Your task to perform on an android device: Clear the cart on walmart.com. Add "lg ultragear" to the cart on walmart.com Image 0: 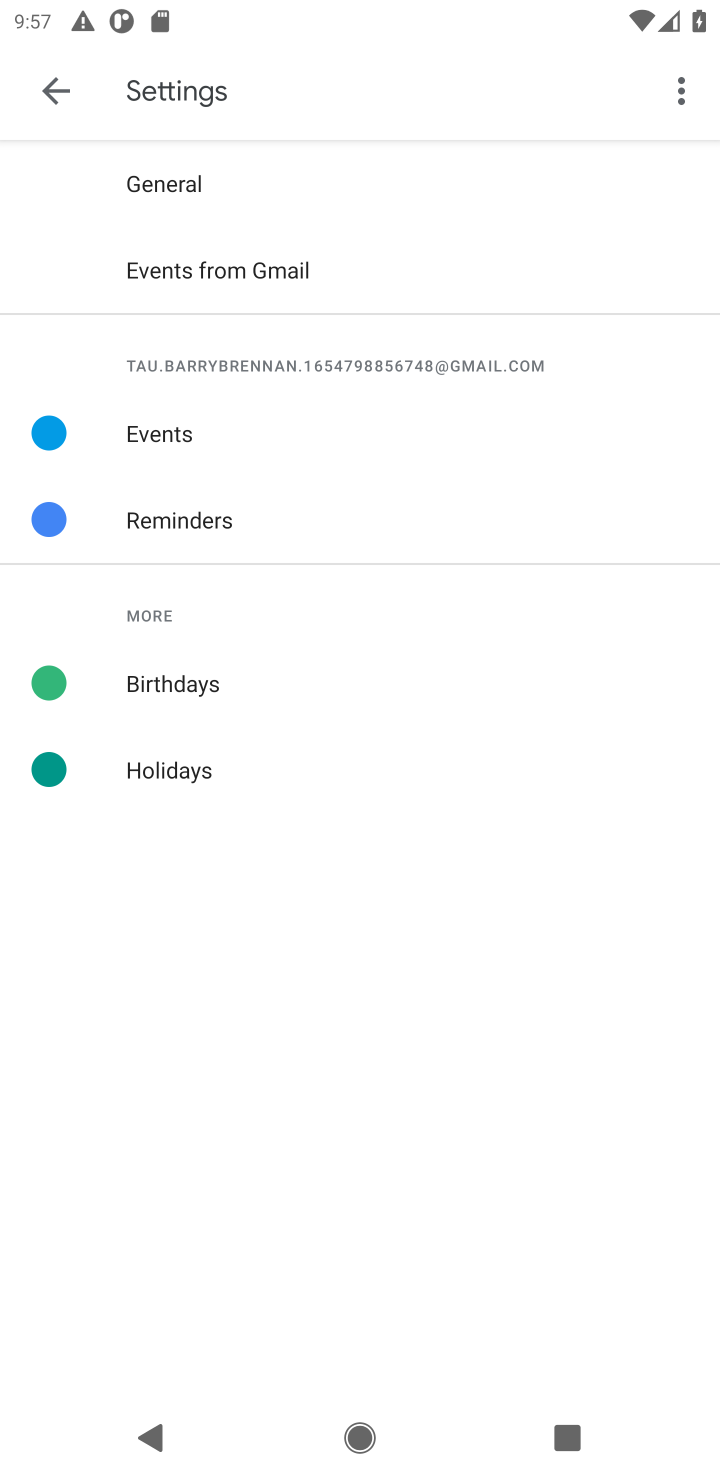
Step 0: press home button
Your task to perform on an android device: Clear the cart on walmart.com. Add "lg ultragear" to the cart on walmart.com Image 1: 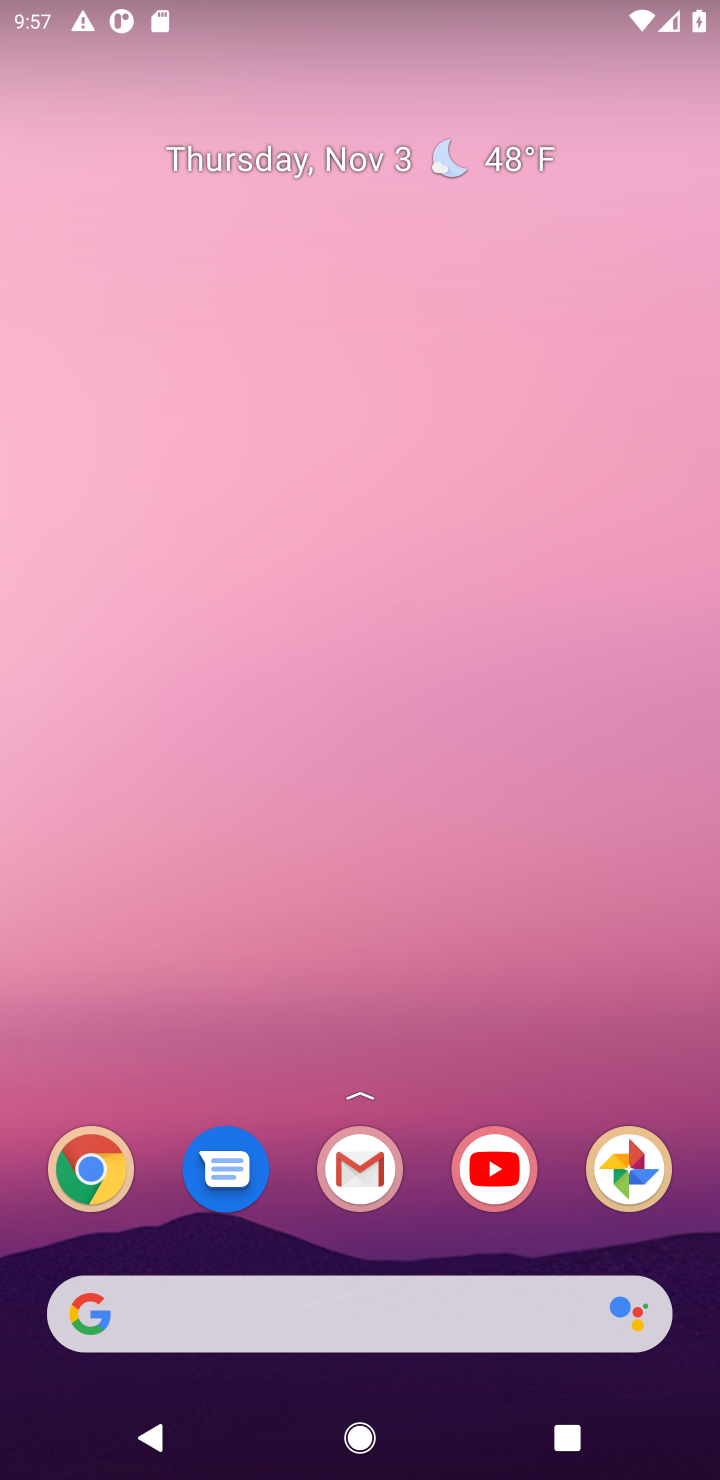
Step 1: drag from (412, 1253) to (475, 184)
Your task to perform on an android device: Clear the cart on walmart.com. Add "lg ultragear" to the cart on walmart.com Image 2: 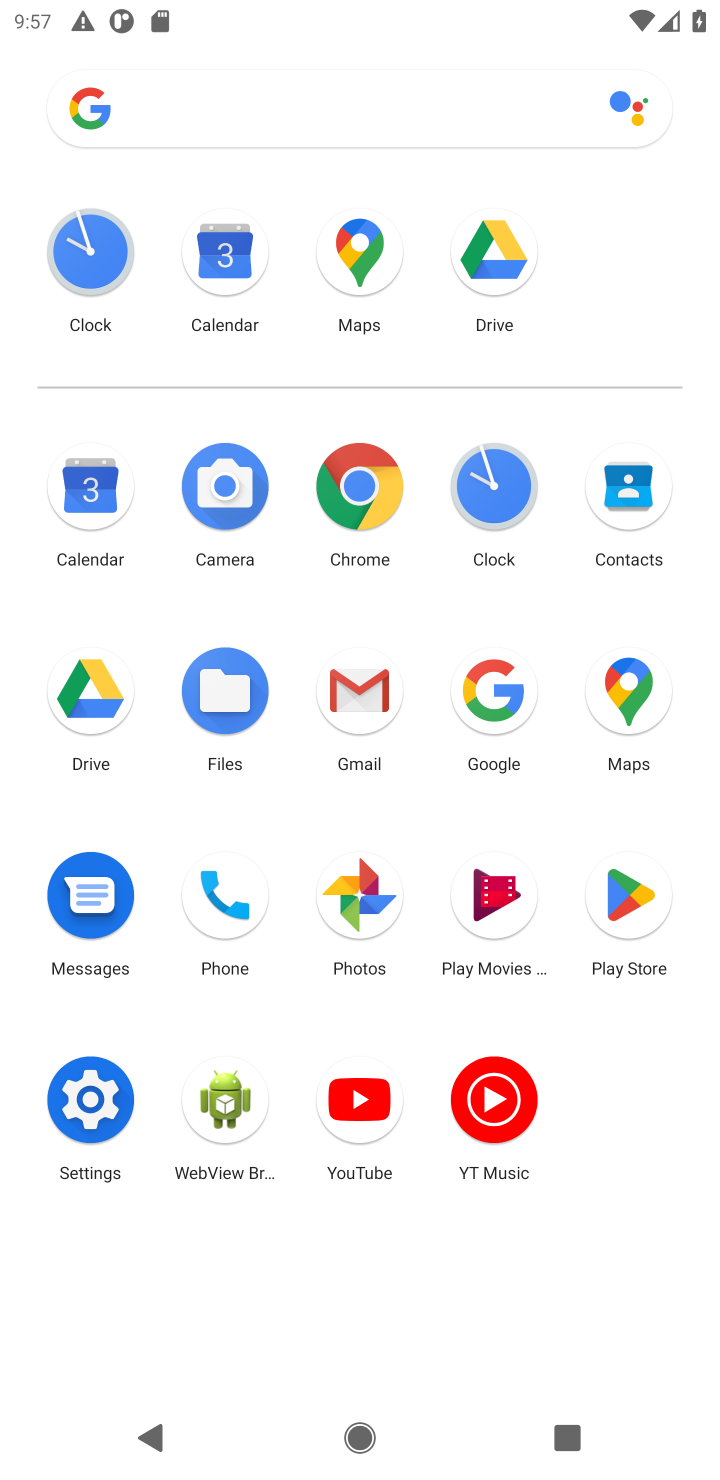
Step 2: click (350, 487)
Your task to perform on an android device: Clear the cart on walmart.com. Add "lg ultragear" to the cart on walmart.com Image 3: 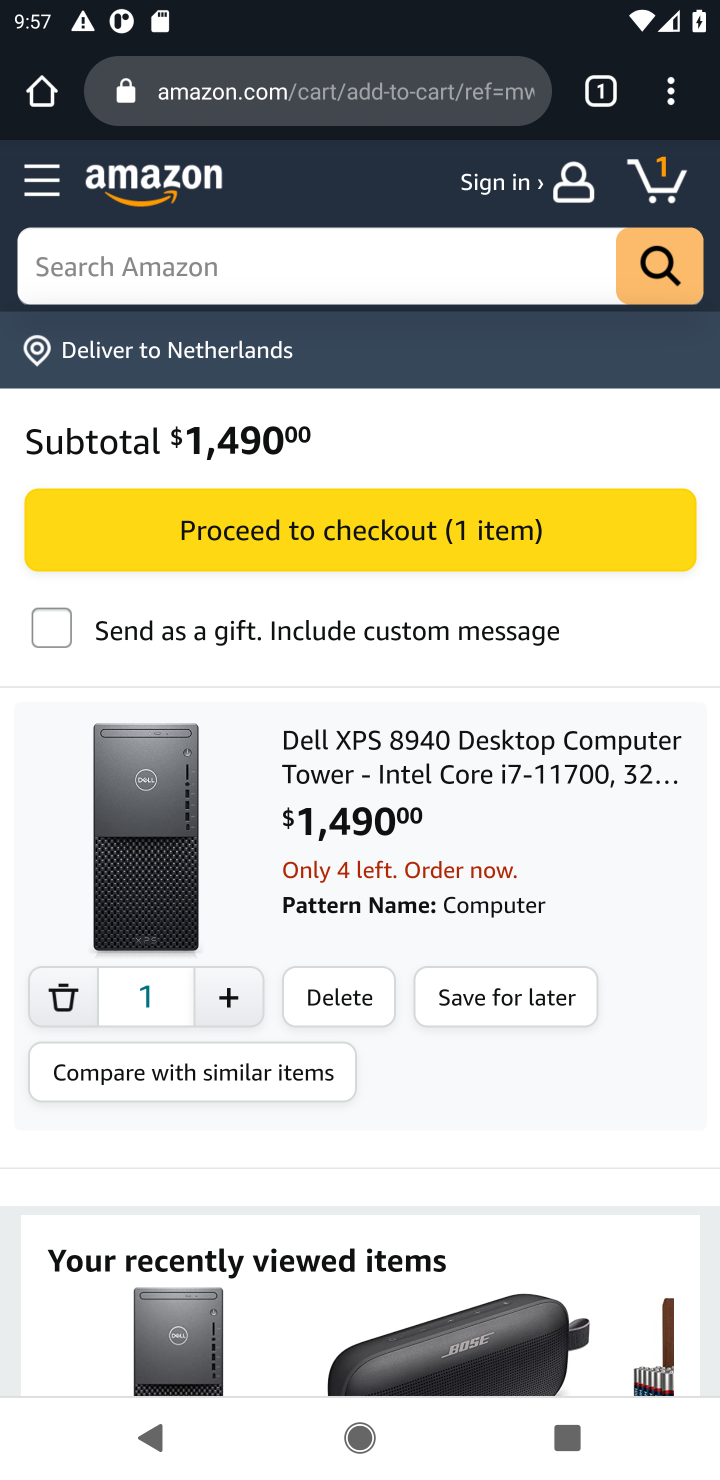
Step 3: click (314, 96)
Your task to perform on an android device: Clear the cart on walmart.com. Add "lg ultragear" to the cart on walmart.com Image 4: 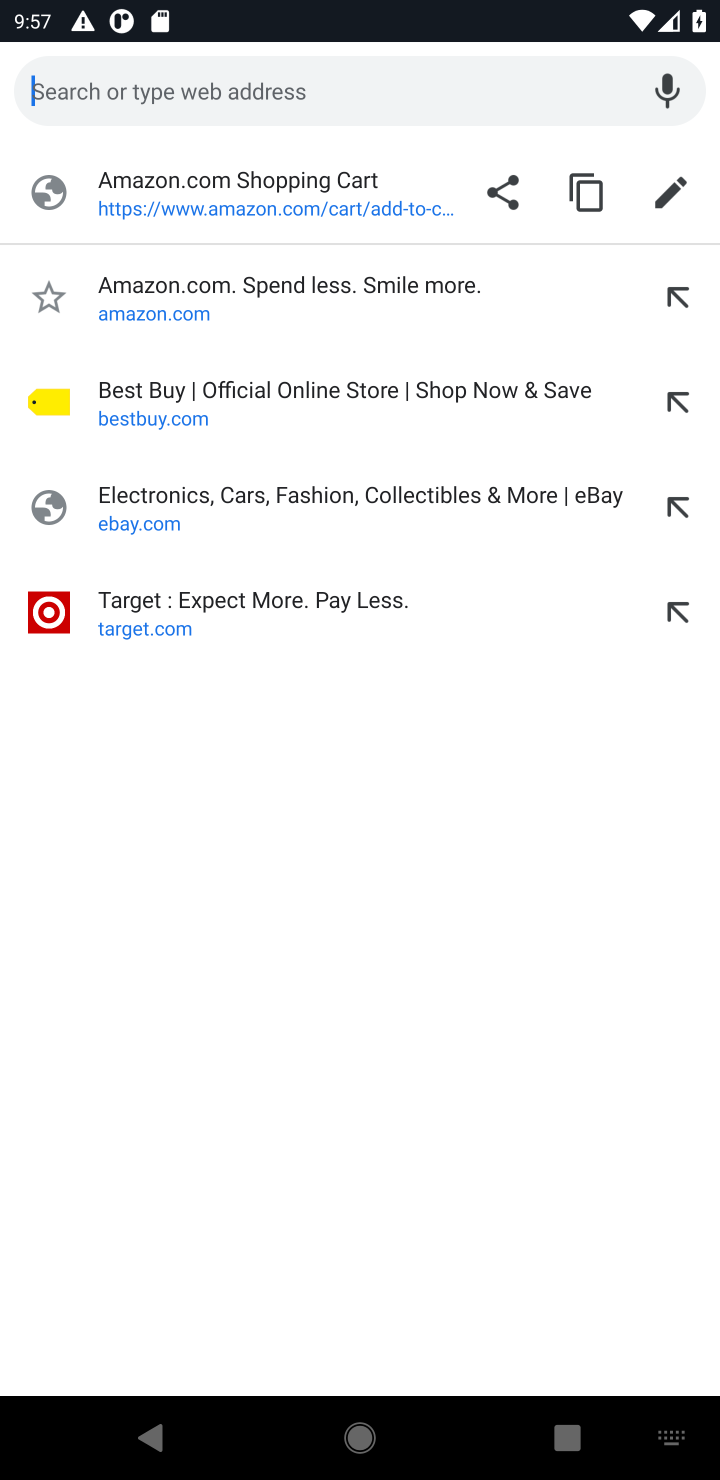
Step 4: type "lg utragrear"
Your task to perform on an android device: Clear the cart on walmart.com. Add "lg ultragear" to the cart on walmart.com Image 5: 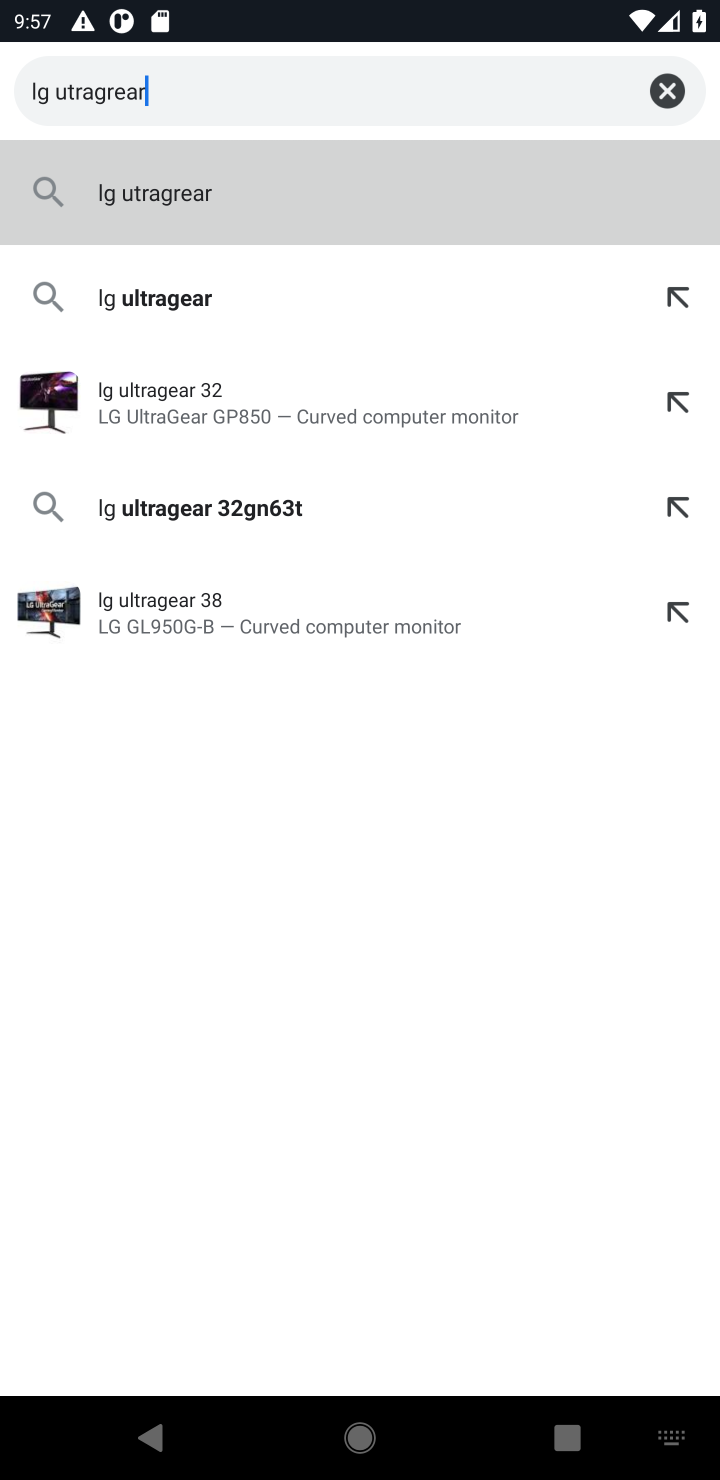
Step 5: click (658, 77)
Your task to perform on an android device: Clear the cart on walmart.com. Add "lg ultragear" to the cart on walmart.com Image 6: 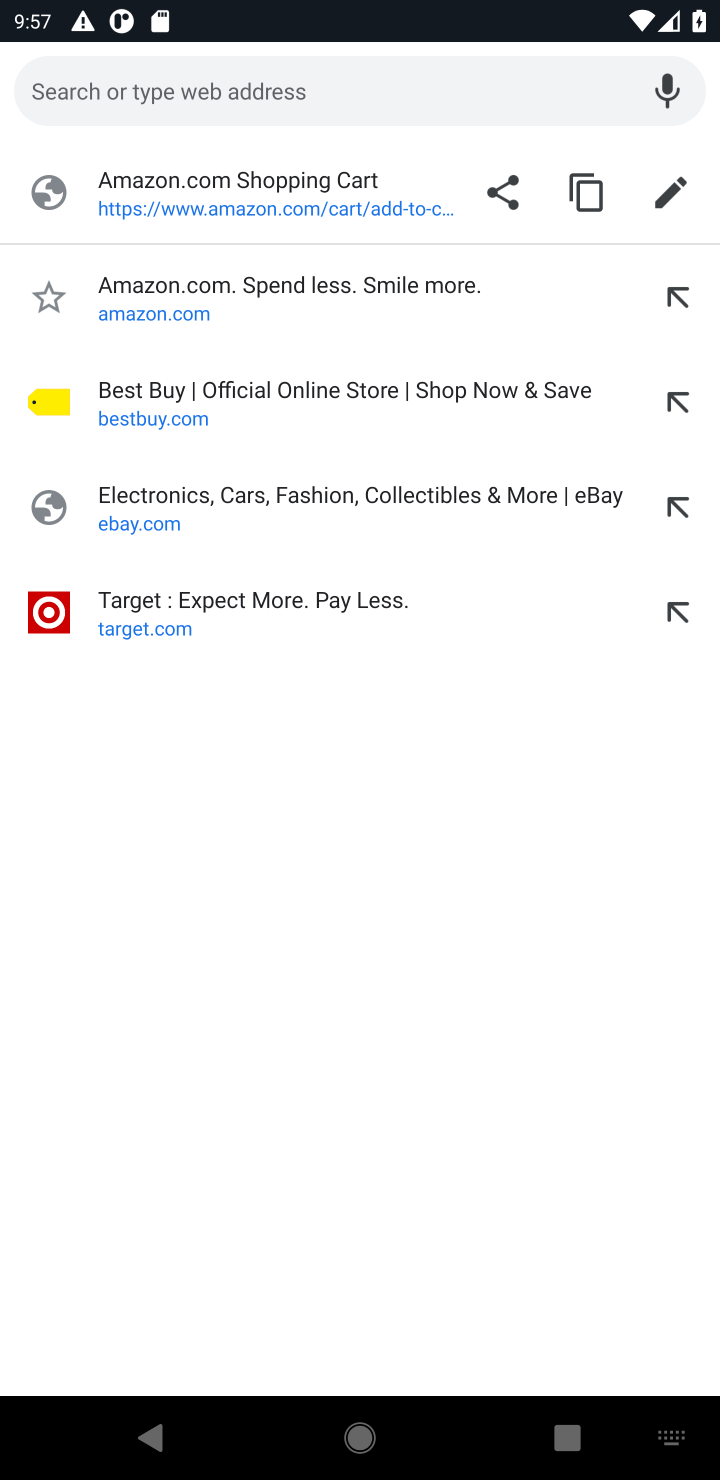
Step 6: type "walmart.com"
Your task to perform on an android device: Clear the cart on walmart.com. Add "lg ultragear" to the cart on walmart.com Image 7: 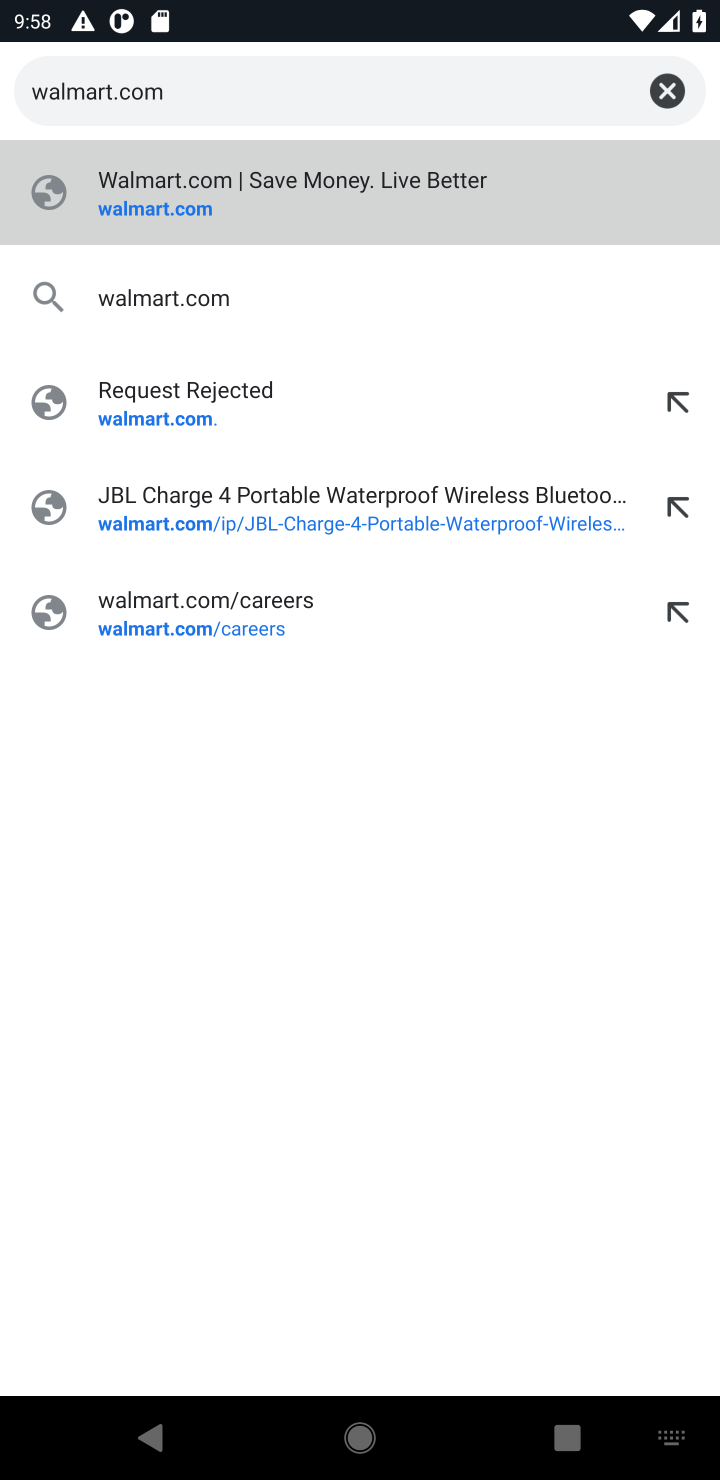
Step 7: press enter
Your task to perform on an android device: Clear the cart on walmart.com. Add "lg ultragear" to the cart on walmart.com Image 8: 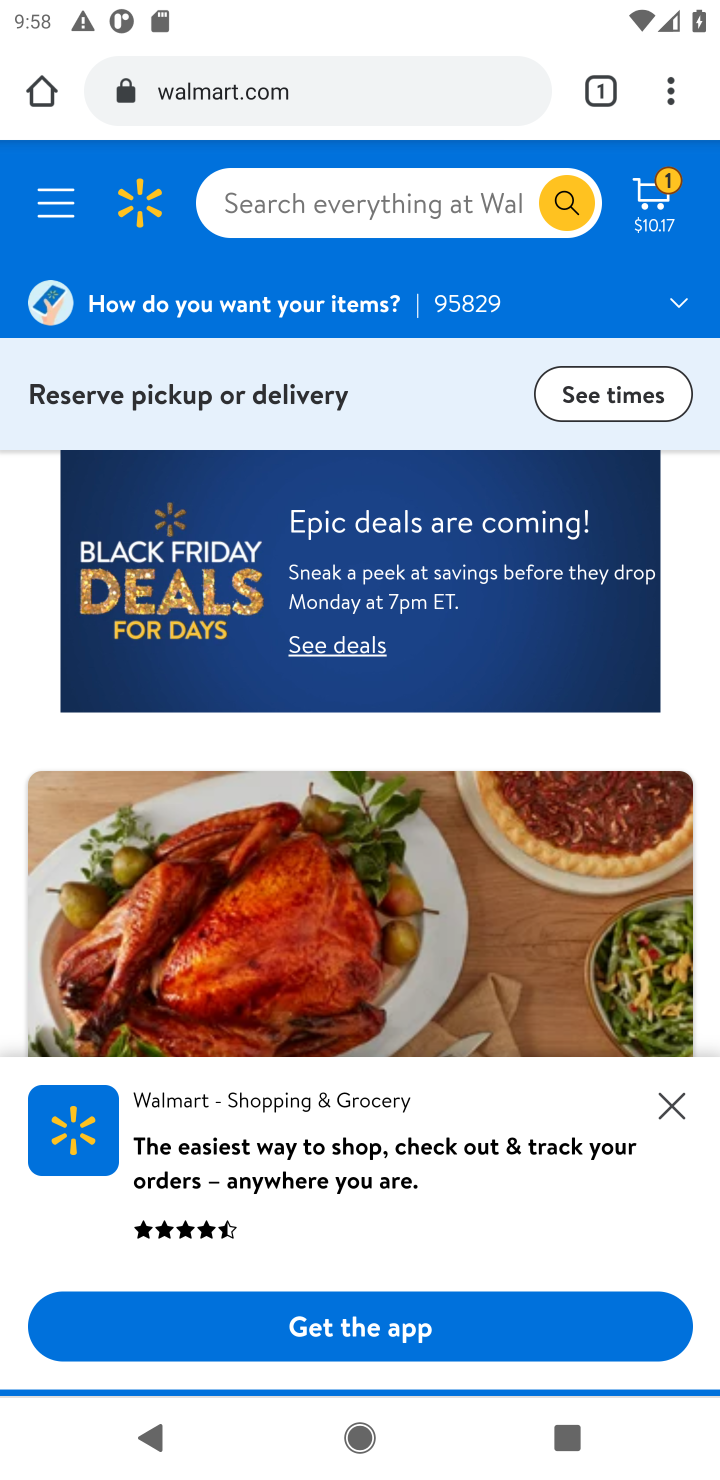
Step 8: click (390, 182)
Your task to perform on an android device: Clear the cart on walmart.com. Add "lg ultragear" to the cart on walmart.com Image 9: 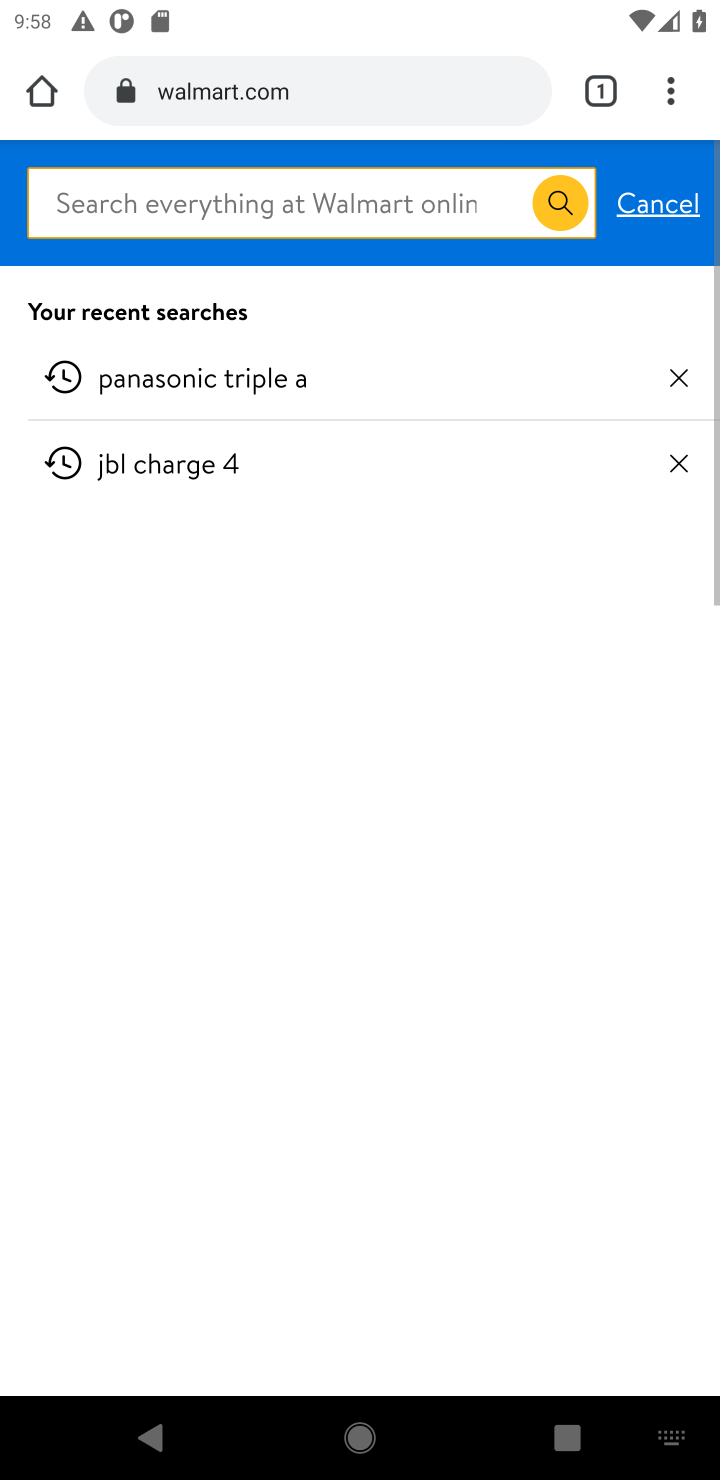
Step 9: click (668, 179)
Your task to perform on an android device: Clear the cart on walmart.com. Add "lg ultragear" to the cart on walmart.com Image 10: 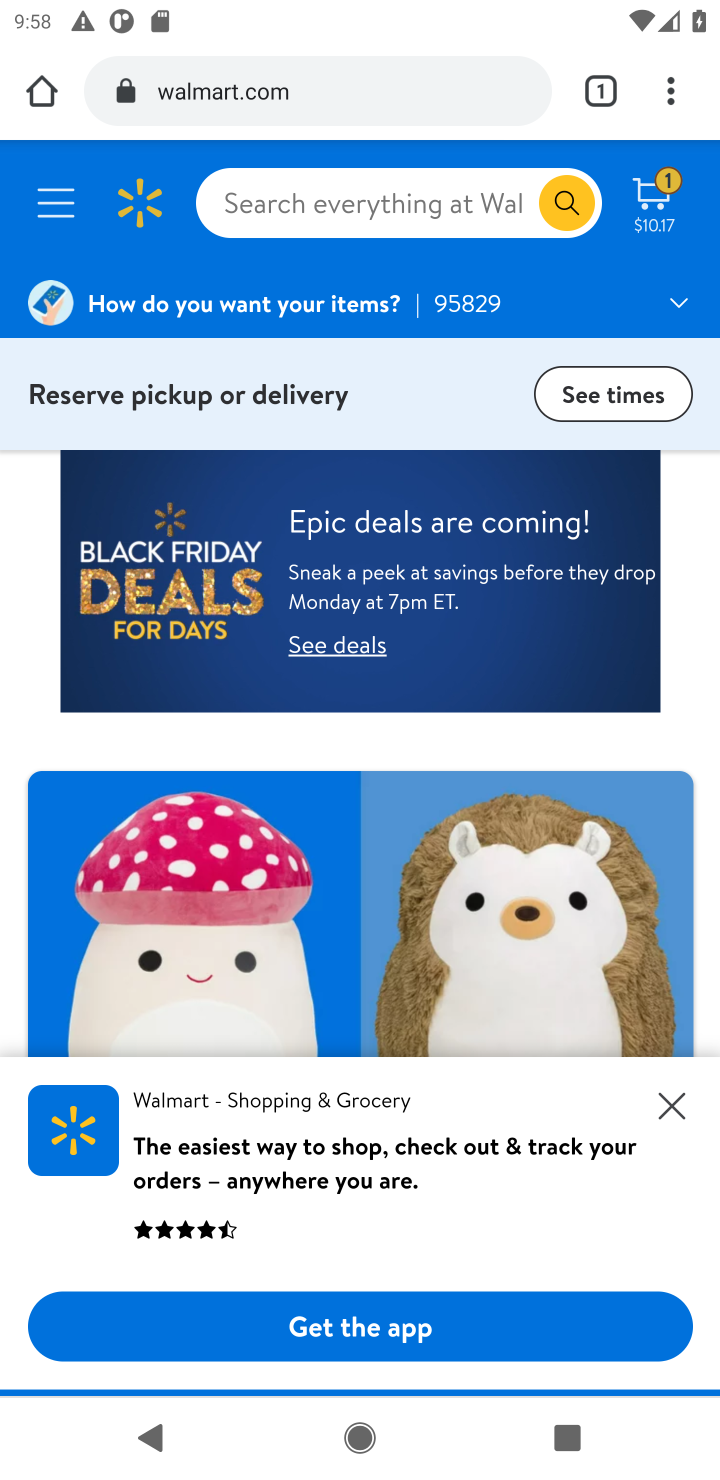
Step 10: click (668, 185)
Your task to perform on an android device: Clear the cart on walmart.com. Add "lg ultragear" to the cart on walmart.com Image 11: 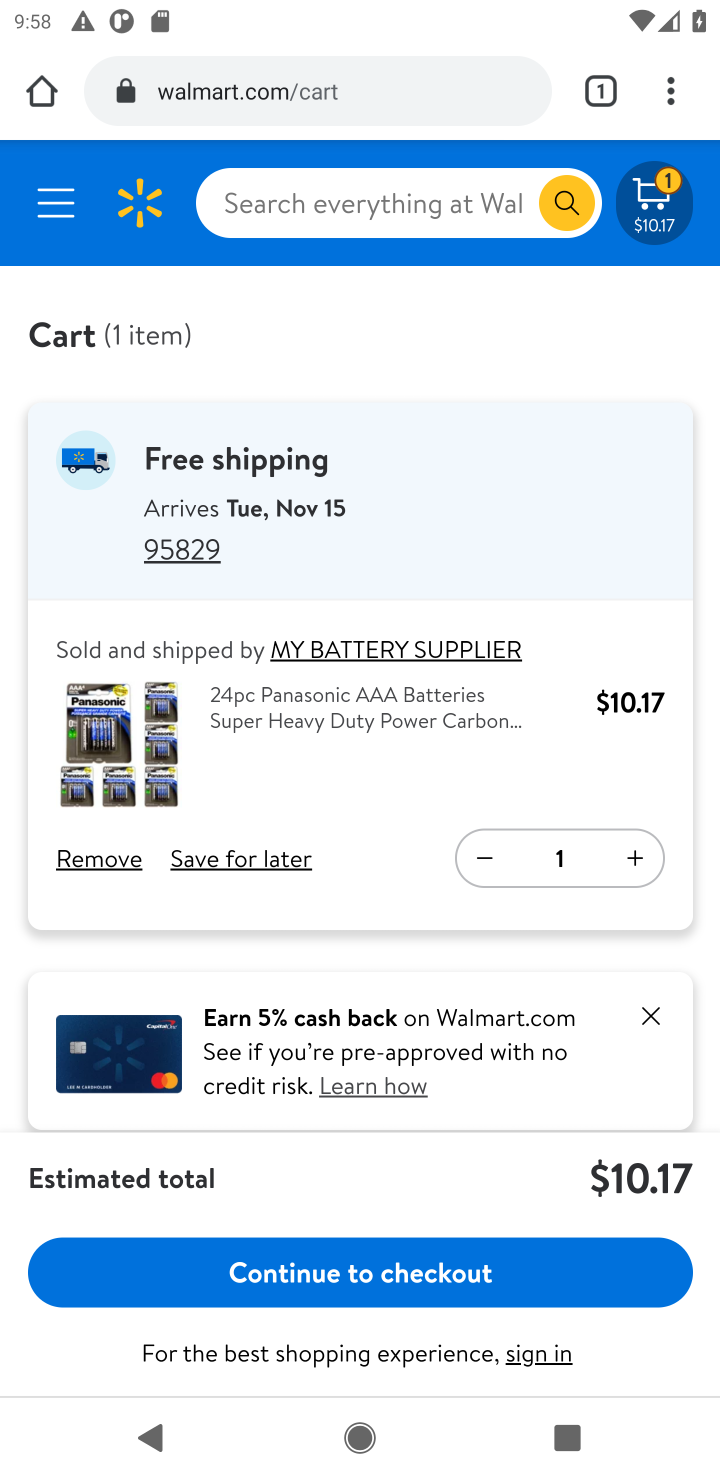
Step 11: click (92, 863)
Your task to perform on an android device: Clear the cart on walmart.com. Add "lg ultragear" to the cart on walmart.com Image 12: 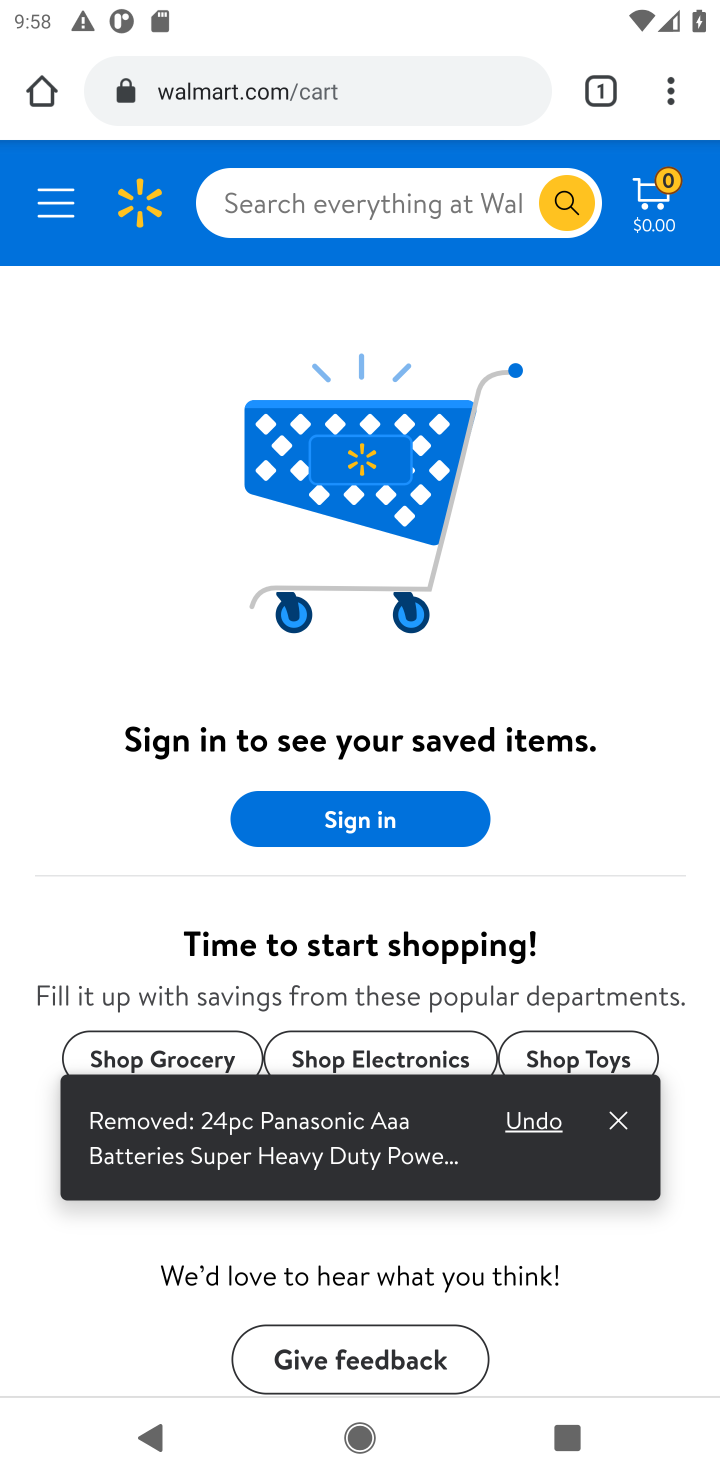
Step 12: click (359, 205)
Your task to perform on an android device: Clear the cart on walmart.com. Add "lg ultragear" to the cart on walmart.com Image 13: 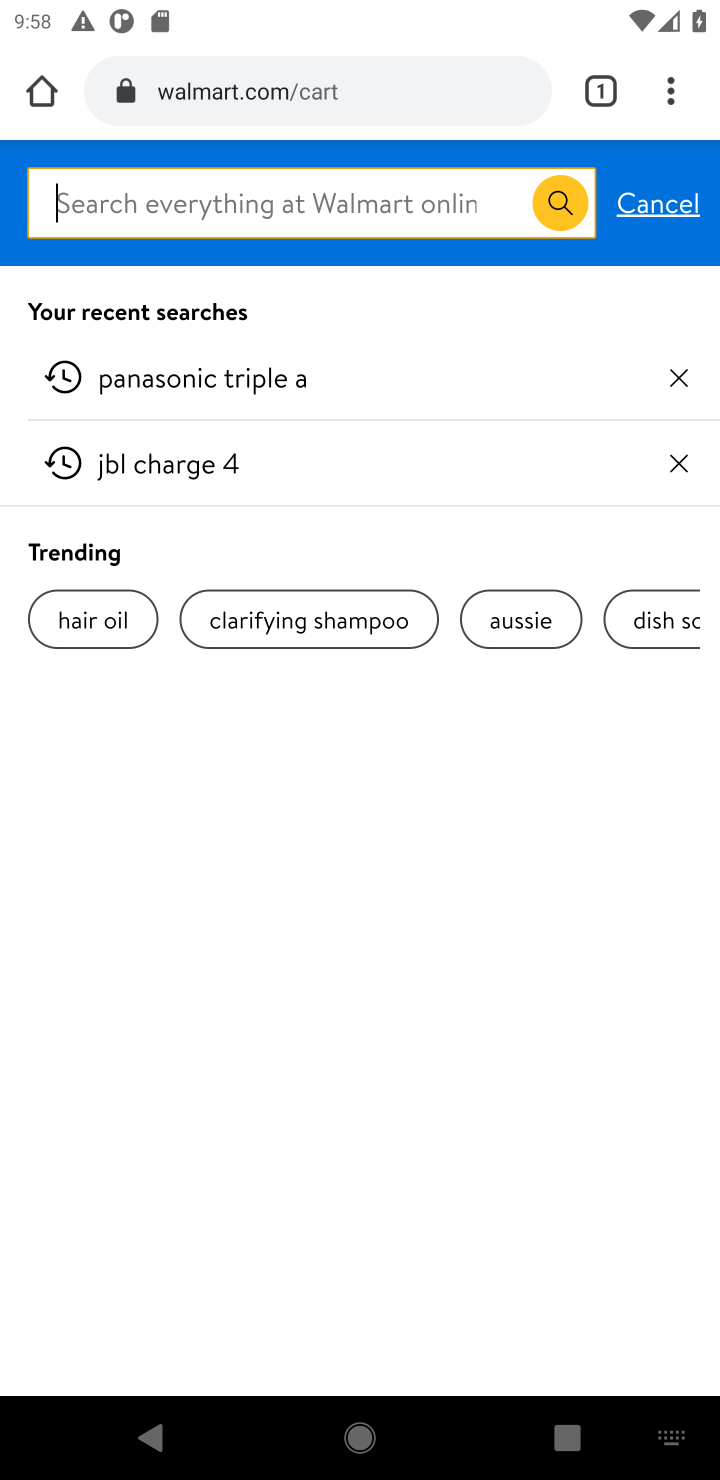
Step 13: type "lg utragrear"
Your task to perform on an android device: Clear the cart on walmart.com. Add "lg ultragear" to the cart on walmart.com Image 14: 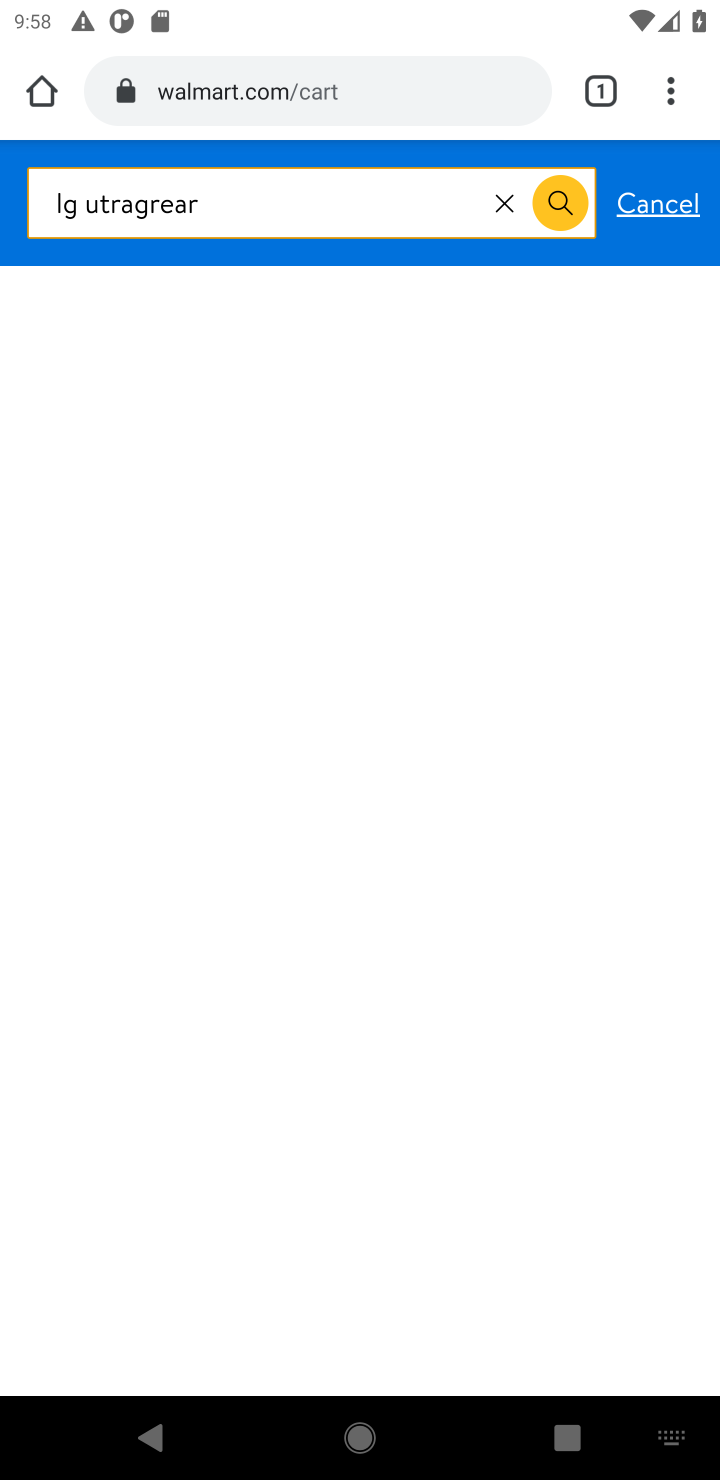
Step 14: click (507, 201)
Your task to perform on an android device: Clear the cart on walmart.com. Add "lg ultragear" to the cart on walmart.com Image 15: 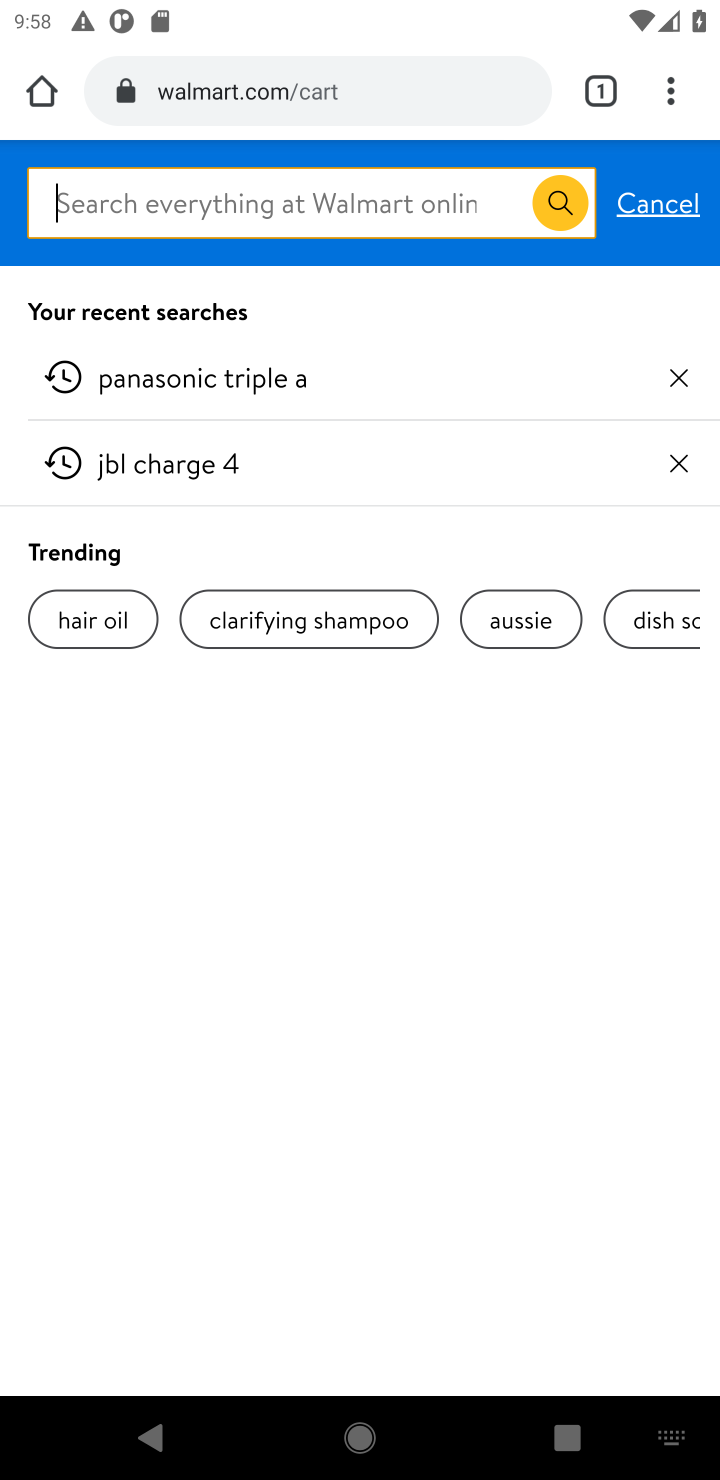
Step 15: type "lg ultragear"
Your task to perform on an android device: Clear the cart on walmart.com. Add "lg ultragear" to the cart on walmart.com Image 16: 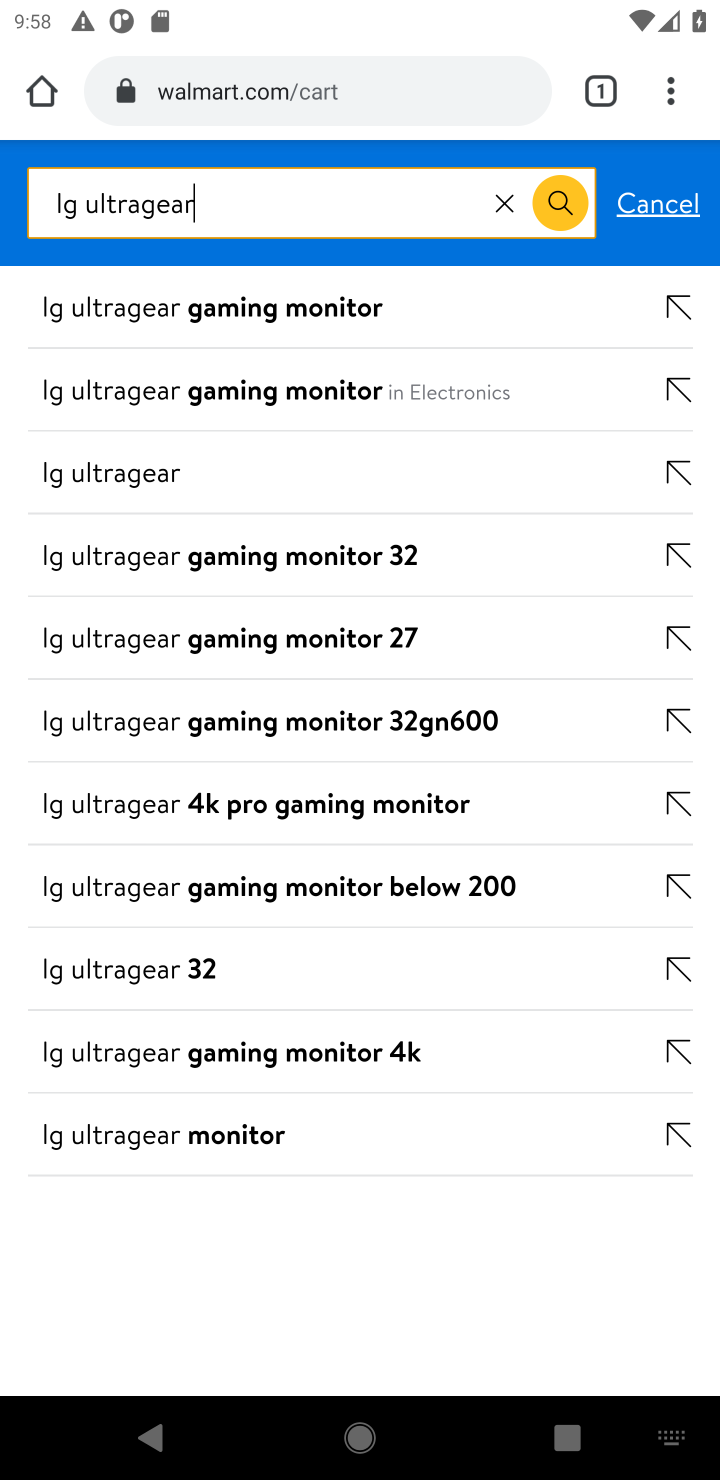
Step 16: press enter
Your task to perform on an android device: Clear the cart on walmart.com. Add "lg ultragear" to the cart on walmart.com Image 17: 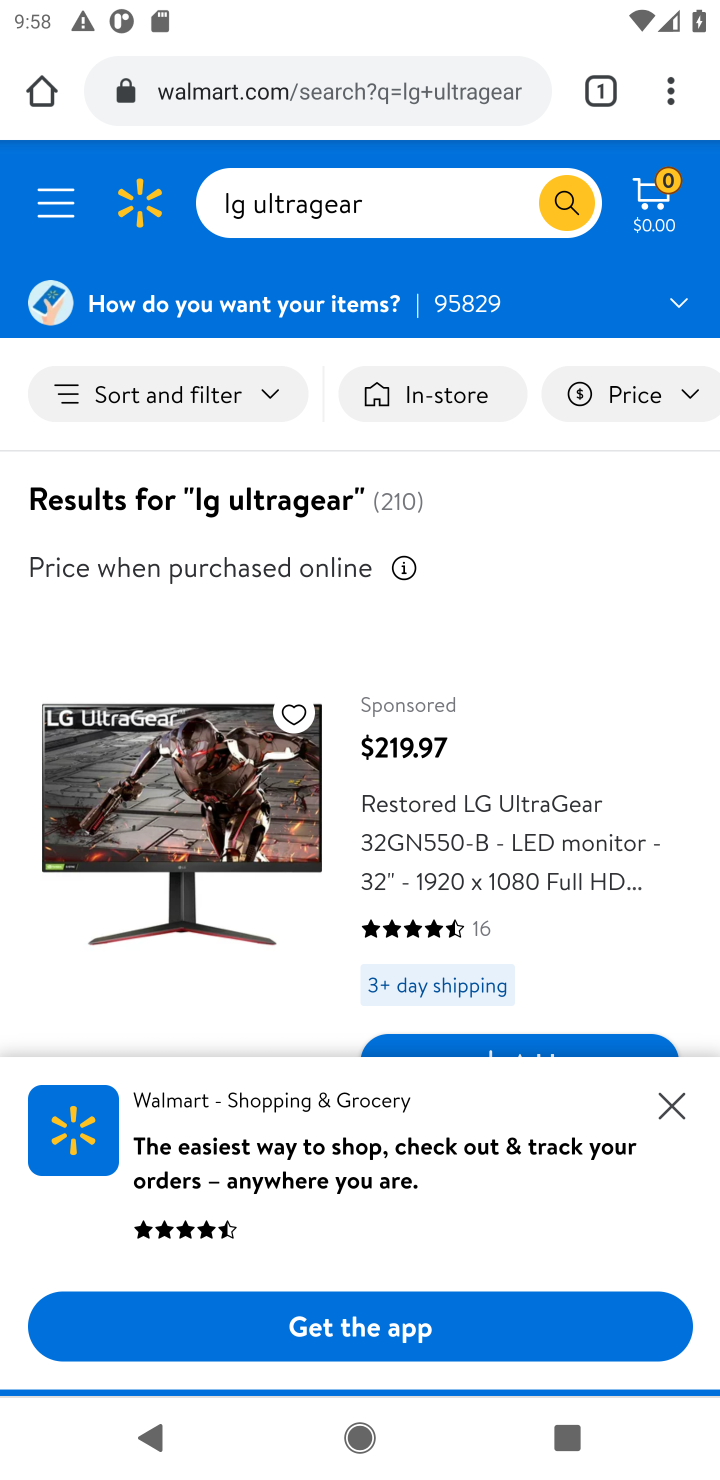
Step 17: drag from (373, 1004) to (389, 261)
Your task to perform on an android device: Clear the cart on walmart.com. Add "lg ultragear" to the cart on walmart.com Image 18: 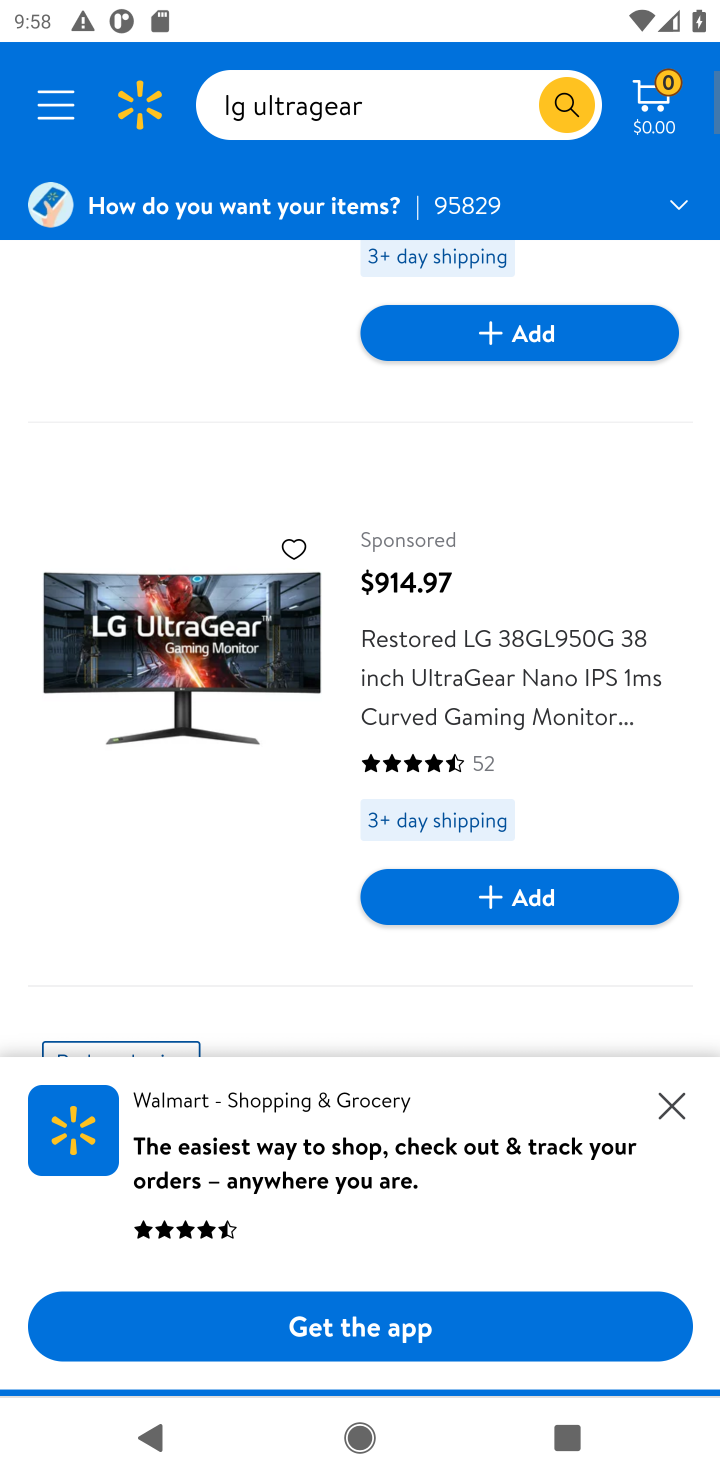
Step 18: drag from (211, 935) to (284, 269)
Your task to perform on an android device: Clear the cart on walmart.com. Add "lg ultragear" to the cart on walmart.com Image 19: 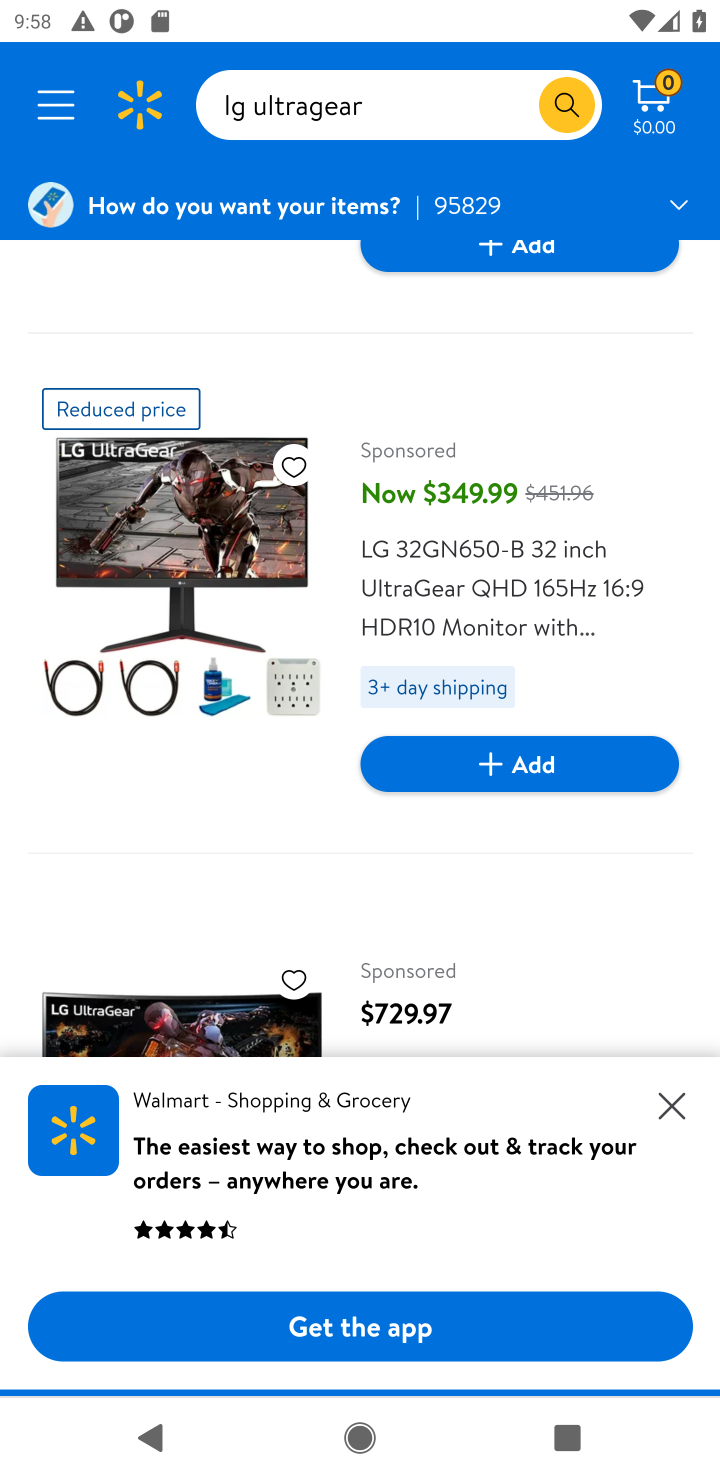
Step 19: drag from (256, 940) to (308, 440)
Your task to perform on an android device: Clear the cart on walmart.com. Add "lg ultragear" to the cart on walmart.com Image 20: 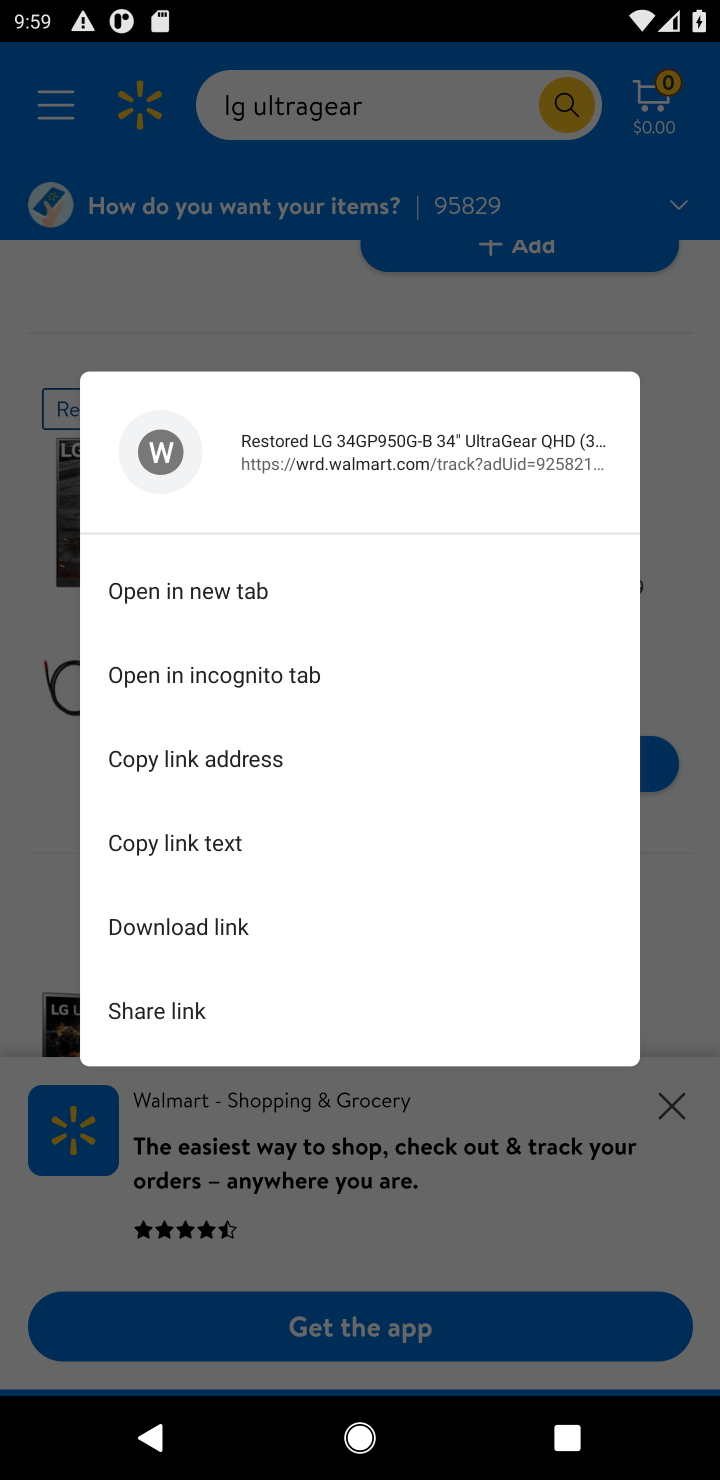
Step 20: click (33, 776)
Your task to perform on an android device: Clear the cart on walmart.com. Add "lg ultragear" to the cart on walmart.com Image 21: 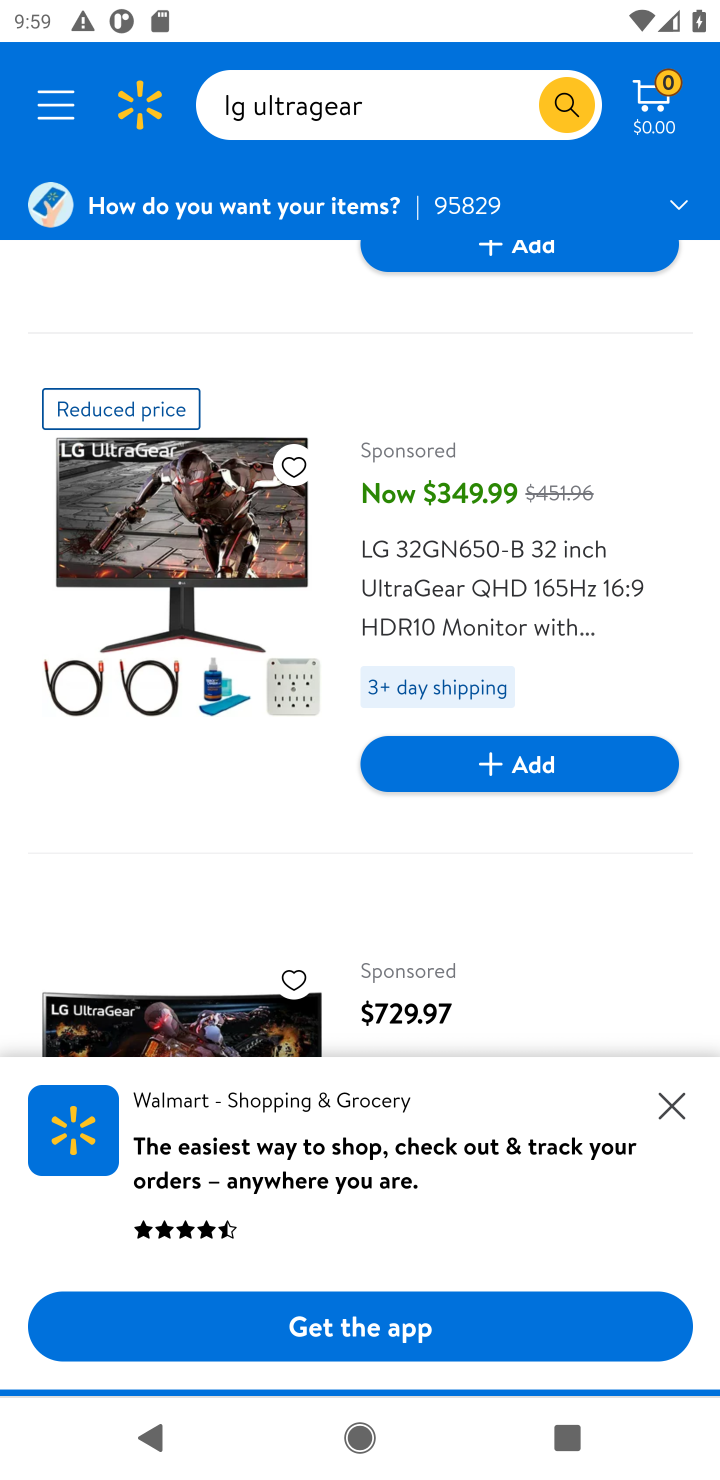
Step 21: drag from (497, 937) to (463, 243)
Your task to perform on an android device: Clear the cart on walmart.com. Add "lg ultragear" to the cart on walmart.com Image 22: 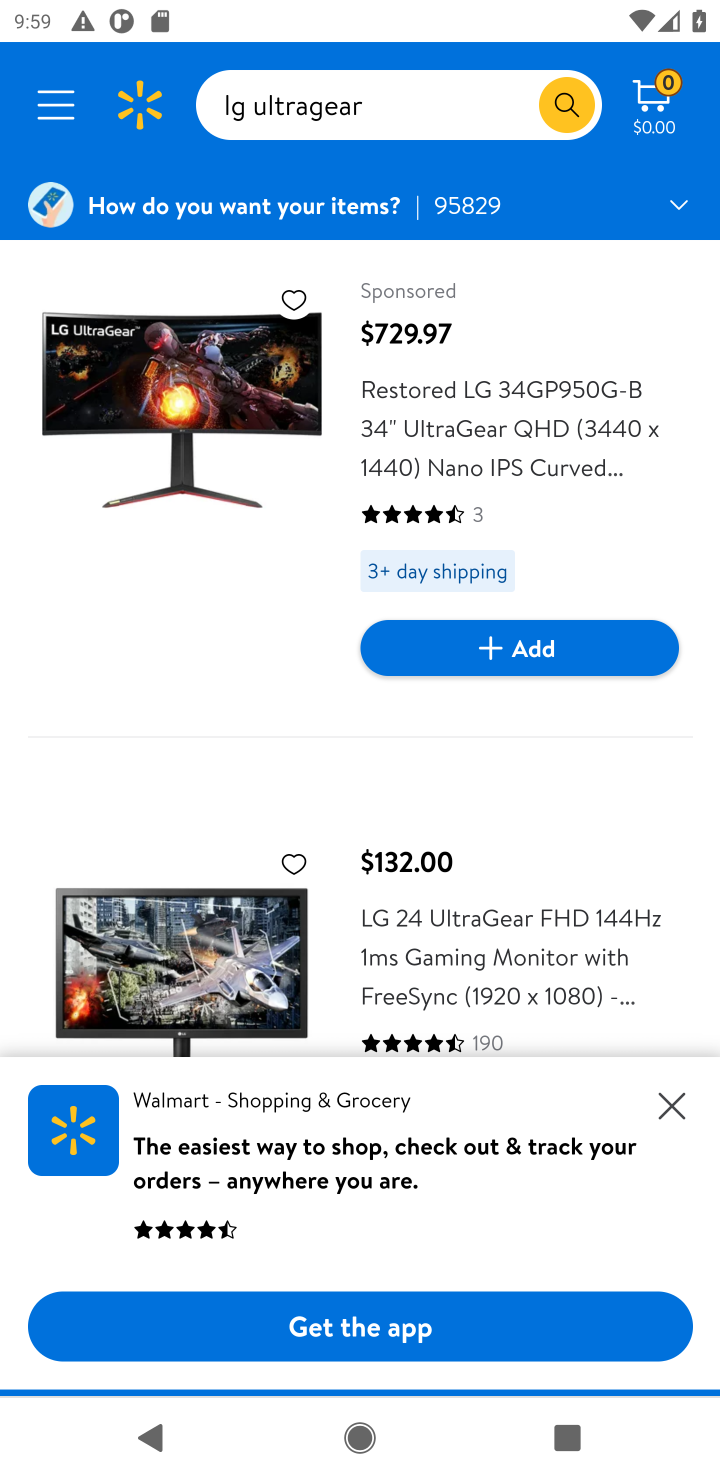
Step 22: drag from (362, 1016) to (439, 555)
Your task to perform on an android device: Clear the cart on walmart.com. Add "lg ultragear" to the cart on walmart.com Image 23: 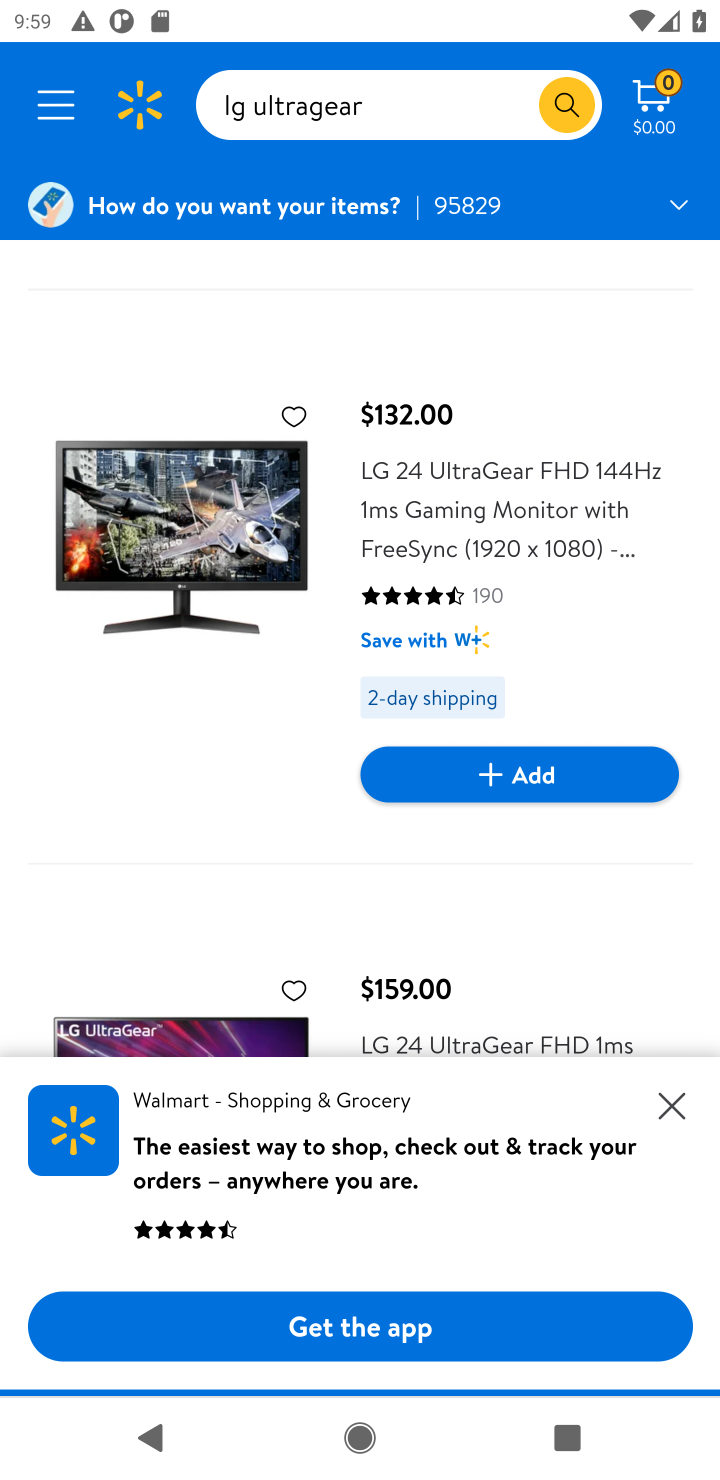
Step 23: drag from (269, 601) to (232, 1140)
Your task to perform on an android device: Clear the cart on walmart.com. Add "lg ultragear" to the cart on walmart.com Image 24: 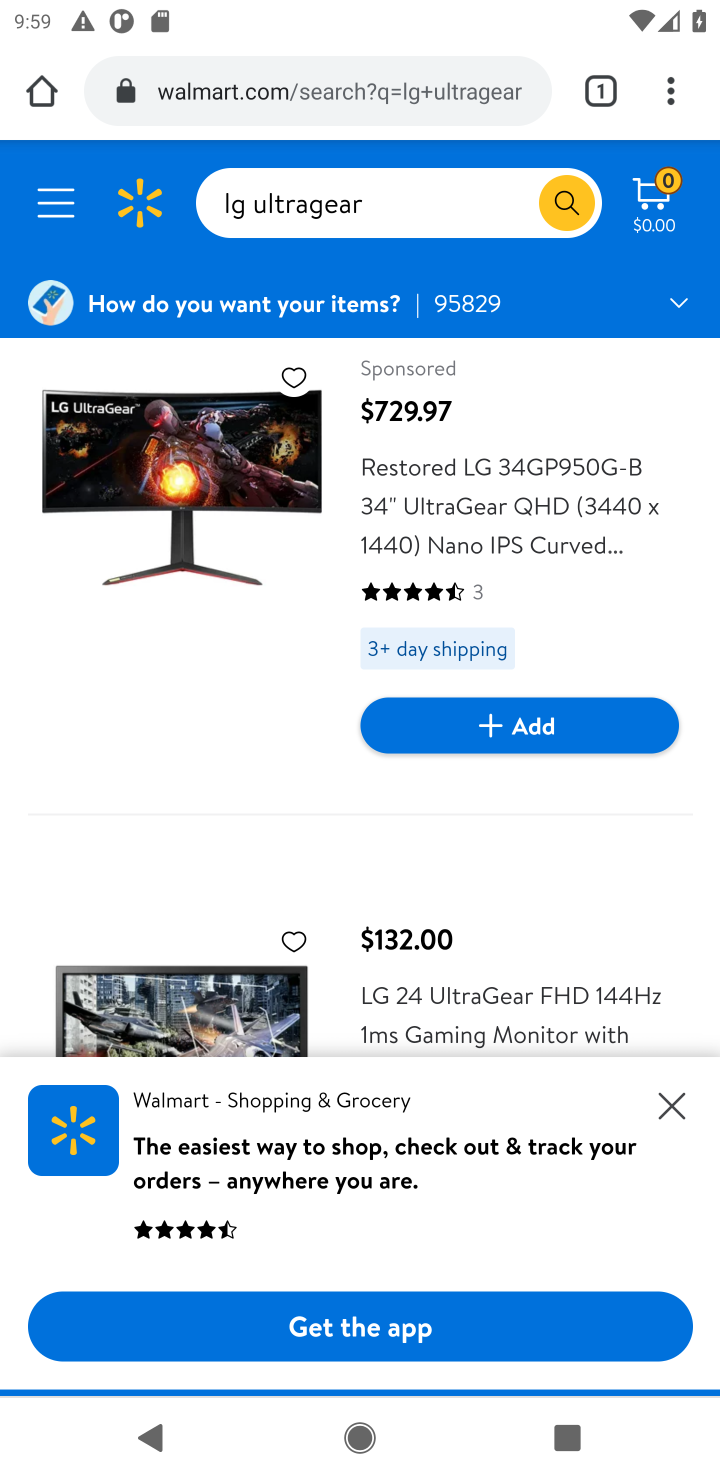
Step 24: drag from (175, 649) to (231, 294)
Your task to perform on an android device: Clear the cart on walmart.com. Add "lg ultragear" to the cart on walmart.com Image 25: 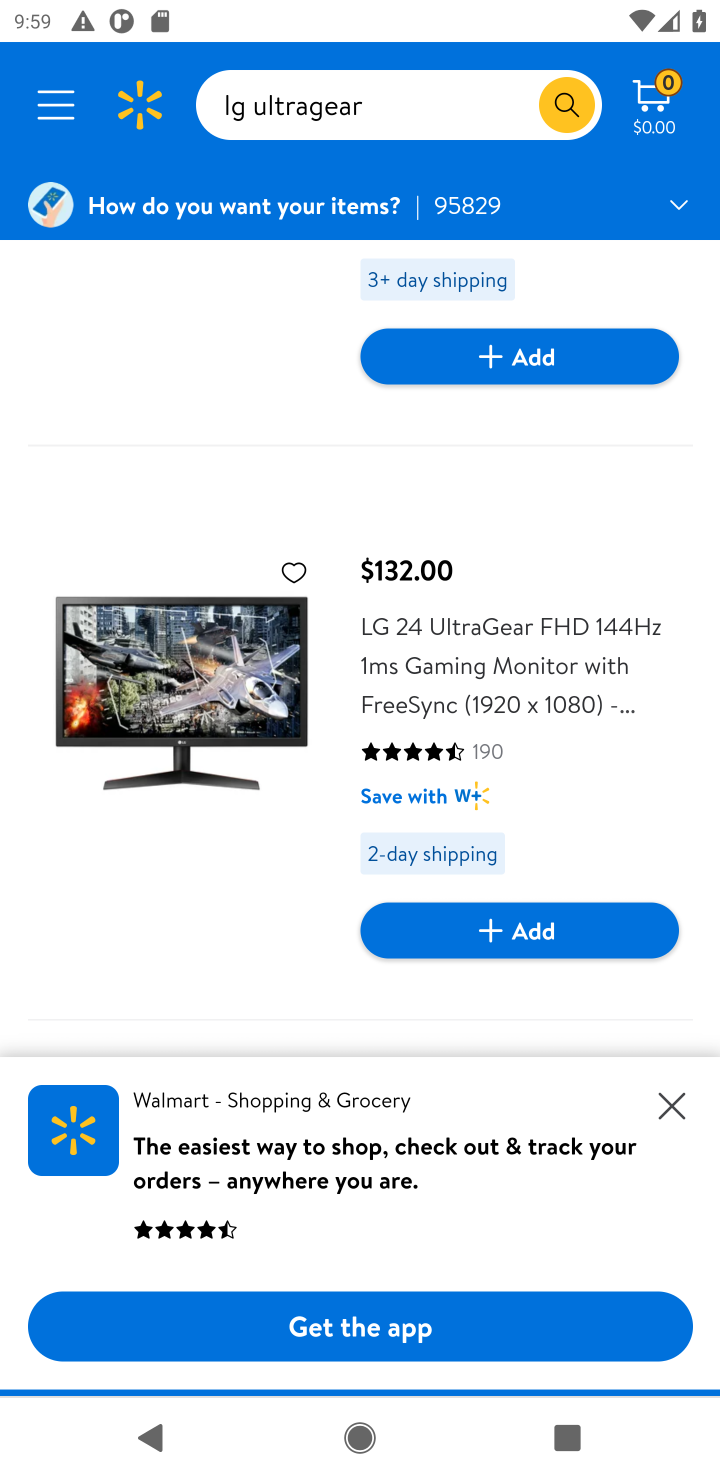
Step 25: click (517, 927)
Your task to perform on an android device: Clear the cart on walmart.com. Add "lg ultragear" to the cart on walmart.com Image 26: 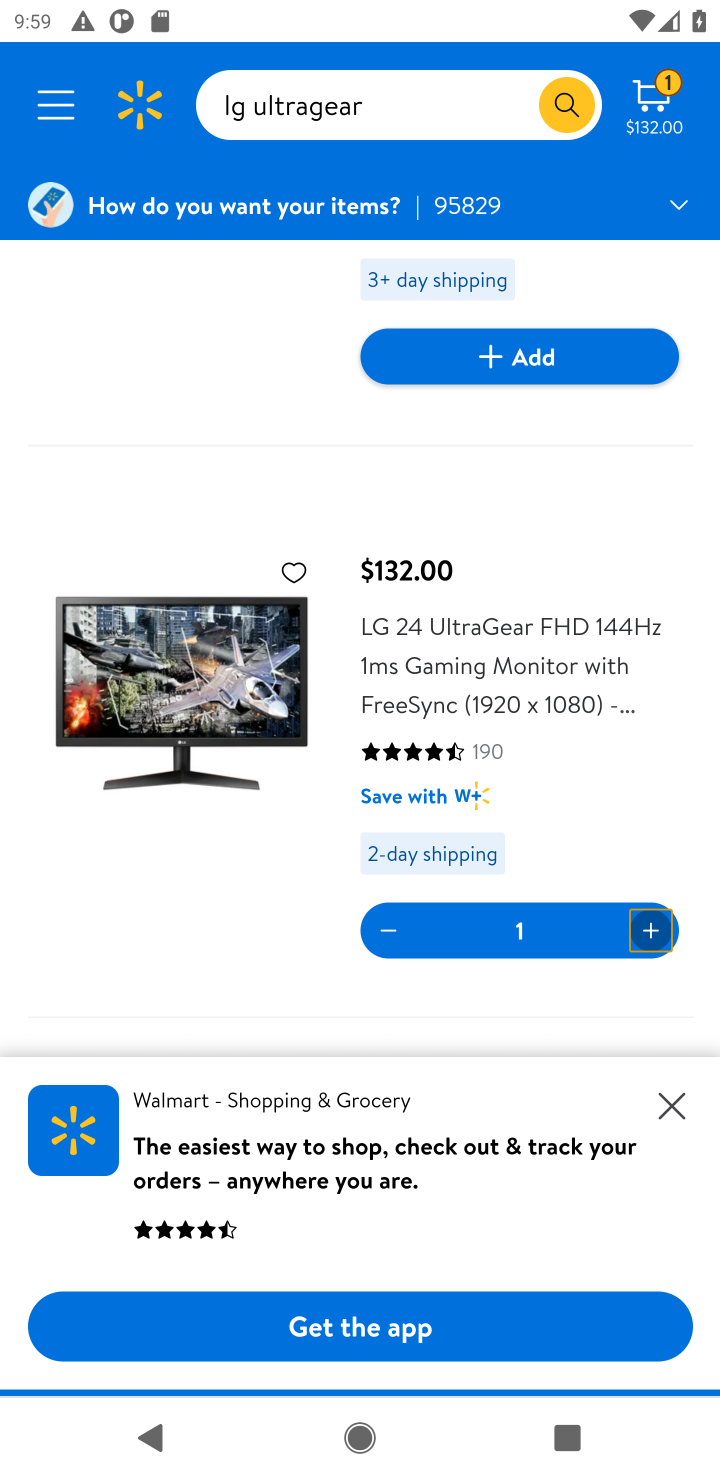
Step 26: task complete